Your task to perform on an android device: Open the Play Movies app and select the watchlist tab. Image 0: 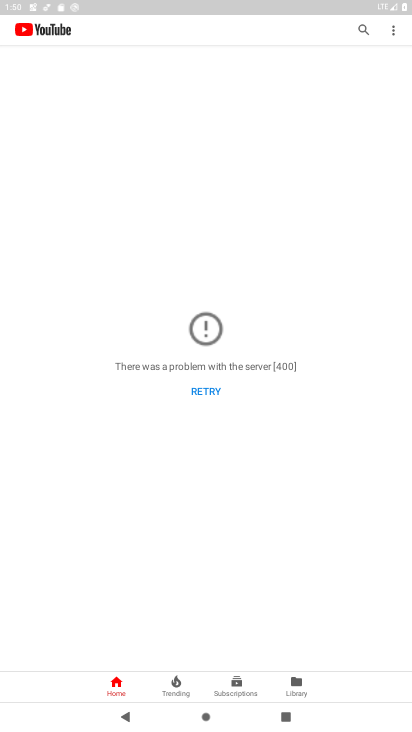
Step 0: press home button
Your task to perform on an android device: Open the Play Movies app and select the watchlist tab. Image 1: 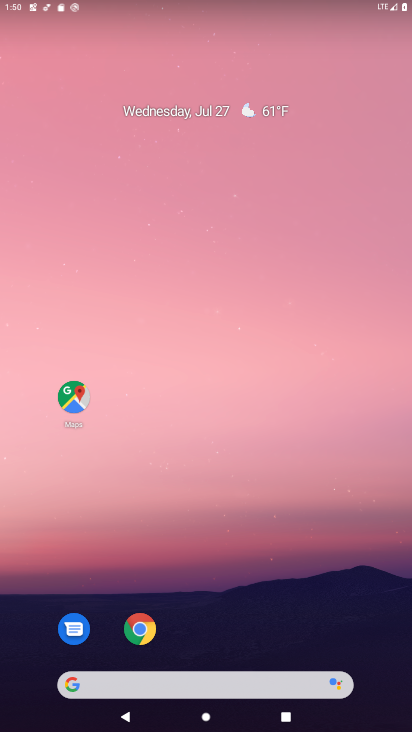
Step 1: drag from (211, 678) to (268, 122)
Your task to perform on an android device: Open the Play Movies app and select the watchlist tab. Image 2: 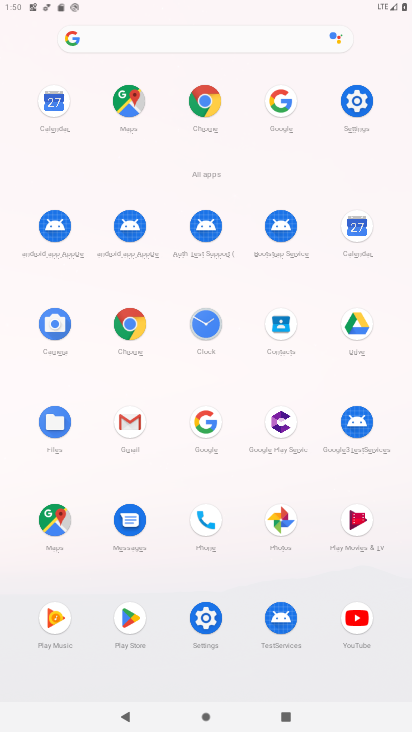
Step 2: click (347, 539)
Your task to perform on an android device: Open the Play Movies app and select the watchlist tab. Image 3: 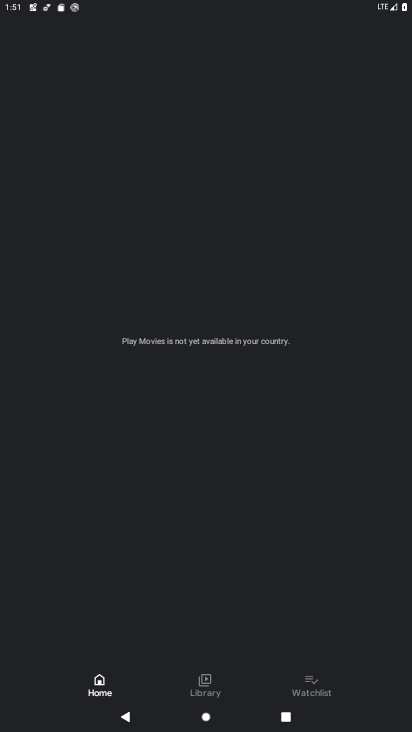
Step 3: click (315, 679)
Your task to perform on an android device: Open the Play Movies app and select the watchlist tab. Image 4: 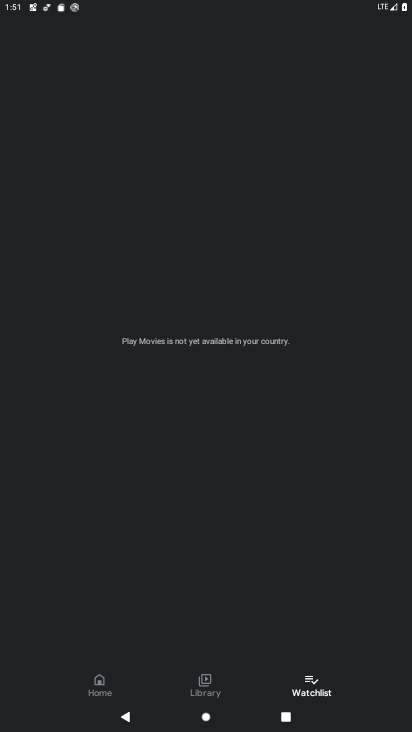
Step 4: task complete